Your task to perform on an android device: change keyboard looks Image 0: 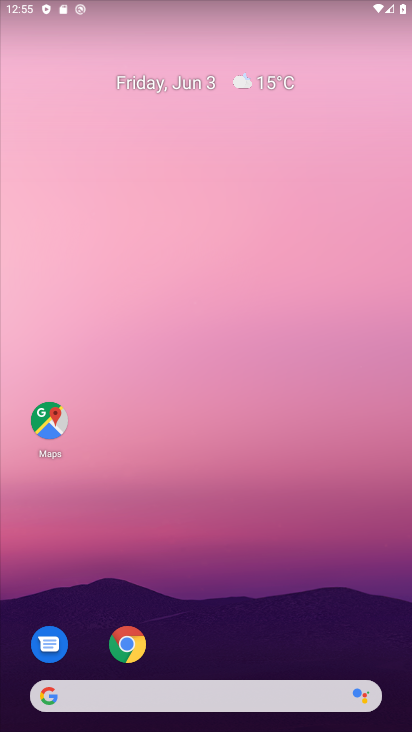
Step 0: drag from (229, 652) to (334, 144)
Your task to perform on an android device: change keyboard looks Image 1: 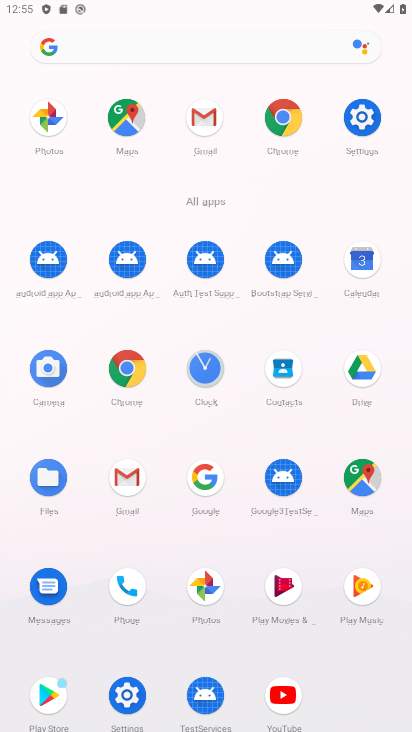
Step 1: click (354, 139)
Your task to perform on an android device: change keyboard looks Image 2: 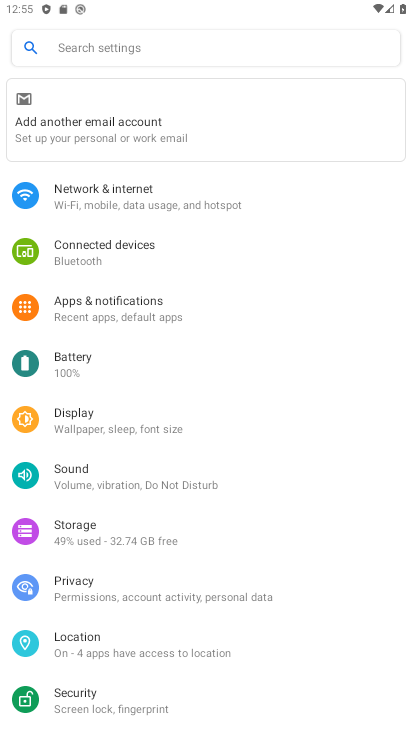
Step 2: drag from (155, 629) to (228, 231)
Your task to perform on an android device: change keyboard looks Image 3: 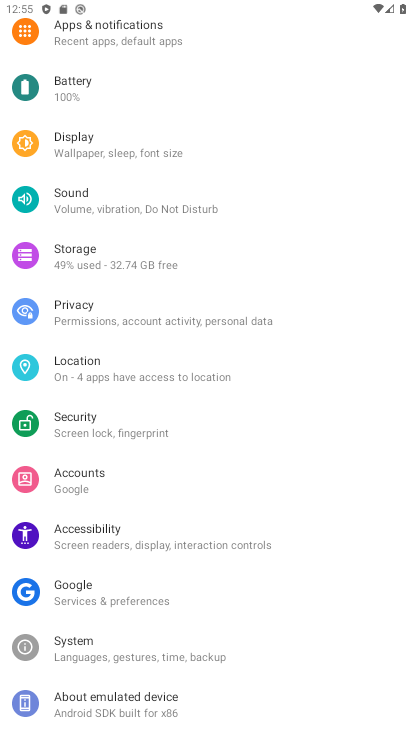
Step 3: click (102, 660)
Your task to perform on an android device: change keyboard looks Image 4: 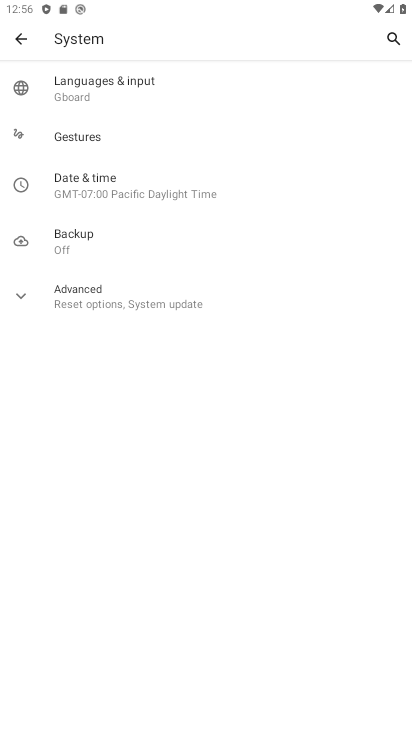
Step 4: click (132, 82)
Your task to perform on an android device: change keyboard looks Image 5: 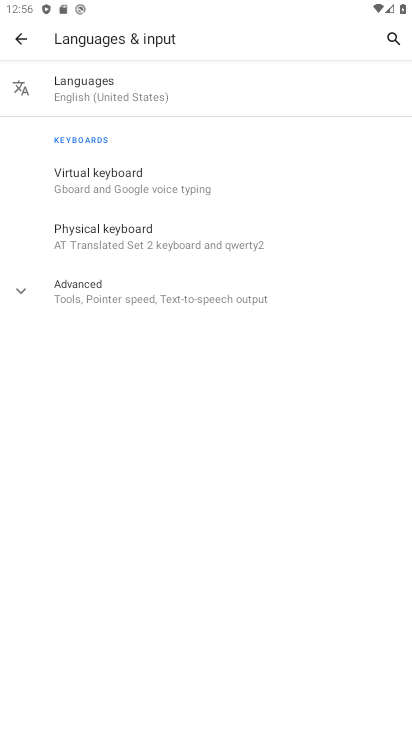
Step 5: click (151, 181)
Your task to perform on an android device: change keyboard looks Image 6: 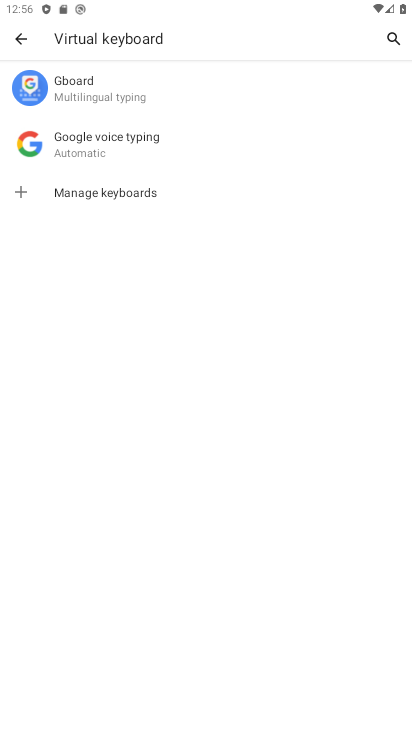
Step 6: click (102, 84)
Your task to perform on an android device: change keyboard looks Image 7: 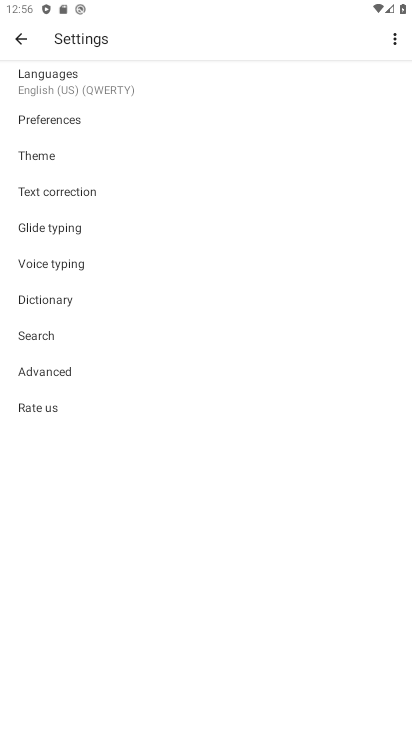
Step 7: click (44, 161)
Your task to perform on an android device: change keyboard looks Image 8: 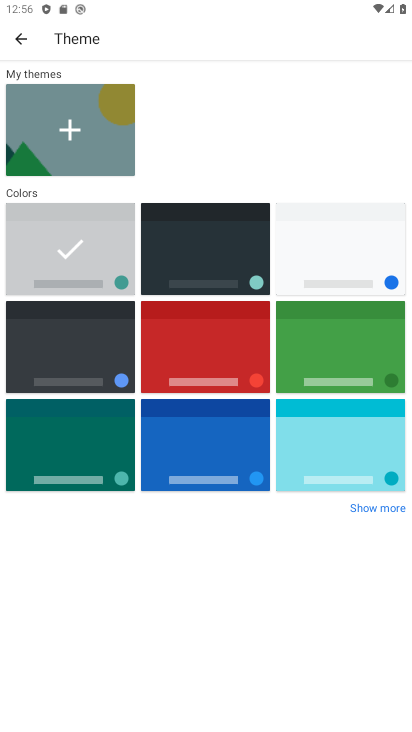
Step 8: click (163, 276)
Your task to perform on an android device: change keyboard looks Image 9: 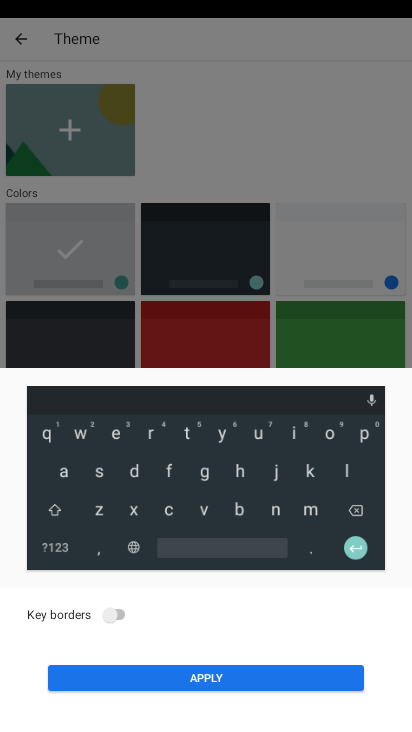
Step 9: click (241, 675)
Your task to perform on an android device: change keyboard looks Image 10: 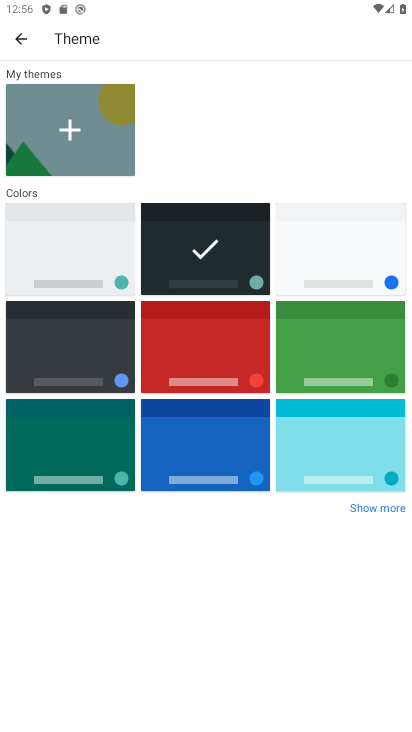
Step 10: task complete